Your task to perform on an android device: Go to Maps Image 0: 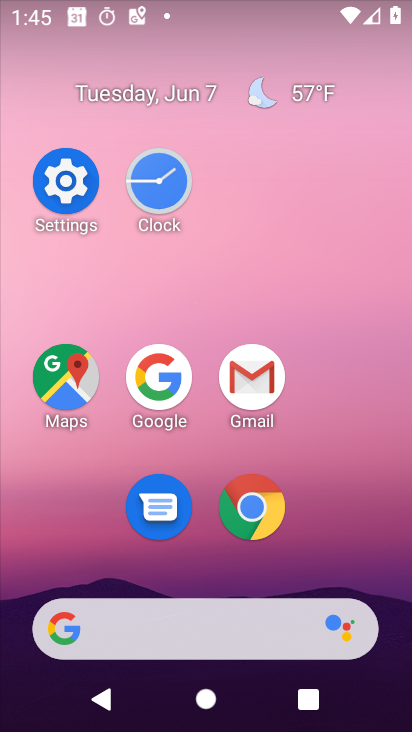
Step 0: click (69, 351)
Your task to perform on an android device: Go to Maps Image 1: 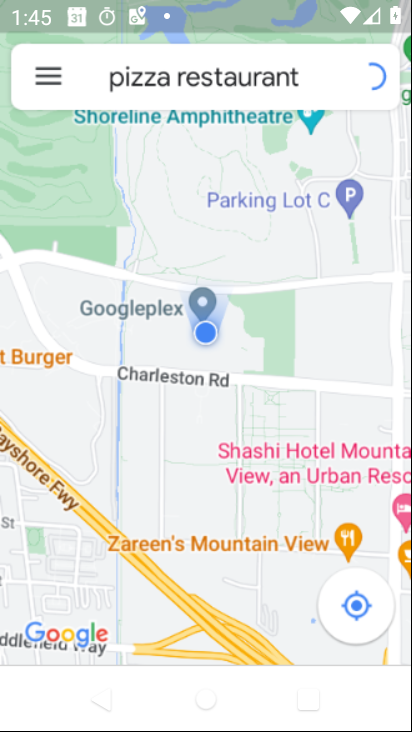
Step 1: task complete